Your task to perform on an android device: Open Wikipedia Image 0: 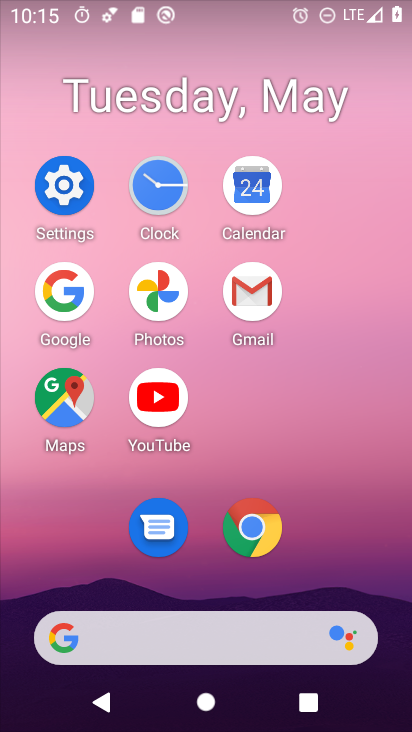
Step 0: click (256, 524)
Your task to perform on an android device: Open Wikipedia Image 1: 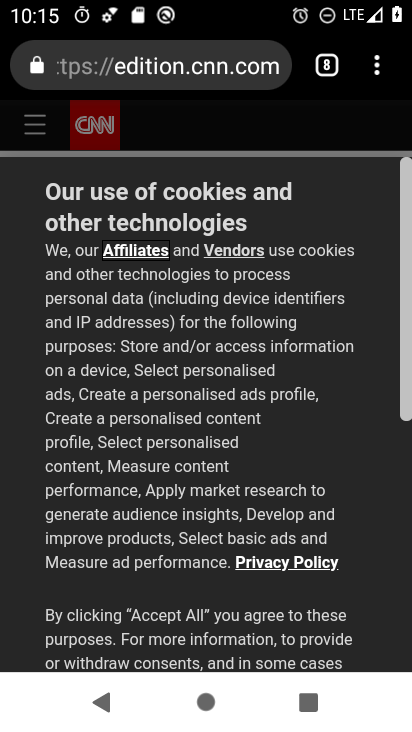
Step 1: click (334, 58)
Your task to perform on an android device: Open Wikipedia Image 2: 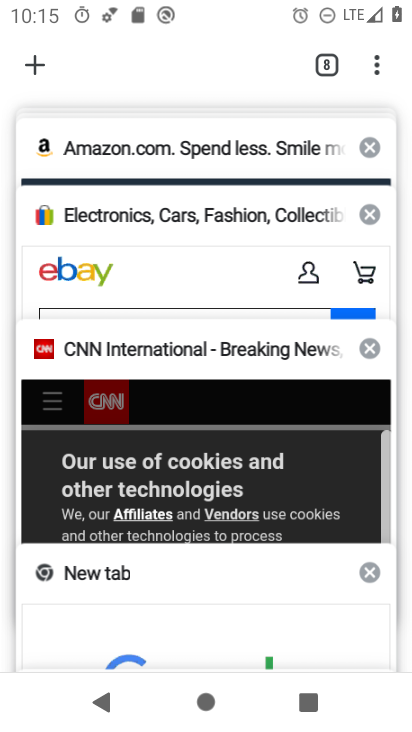
Step 2: drag from (227, 228) to (163, 620)
Your task to perform on an android device: Open Wikipedia Image 3: 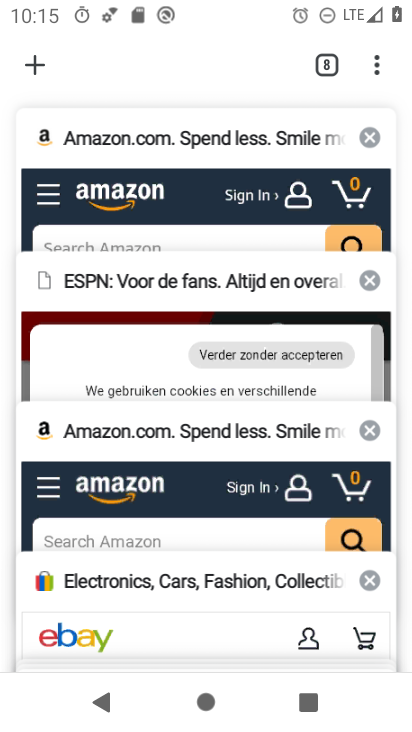
Step 3: drag from (203, 162) to (168, 580)
Your task to perform on an android device: Open Wikipedia Image 4: 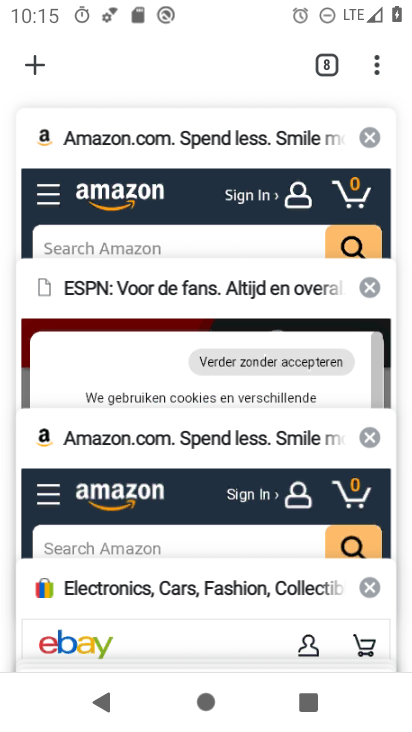
Step 4: drag from (150, 424) to (175, 99)
Your task to perform on an android device: Open Wikipedia Image 5: 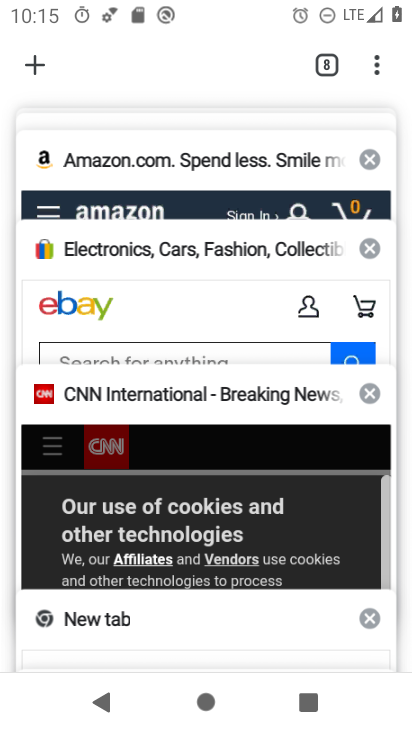
Step 5: drag from (141, 429) to (129, 136)
Your task to perform on an android device: Open Wikipedia Image 6: 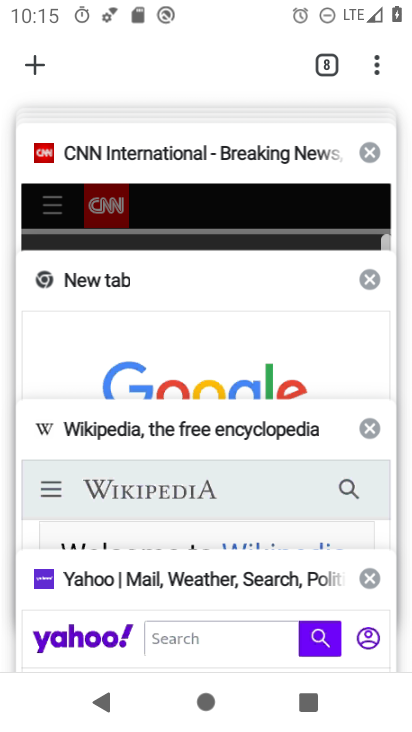
Step 6: click (141, 441)
Your task to perform on an android device: Open Wikipedia Image 7: 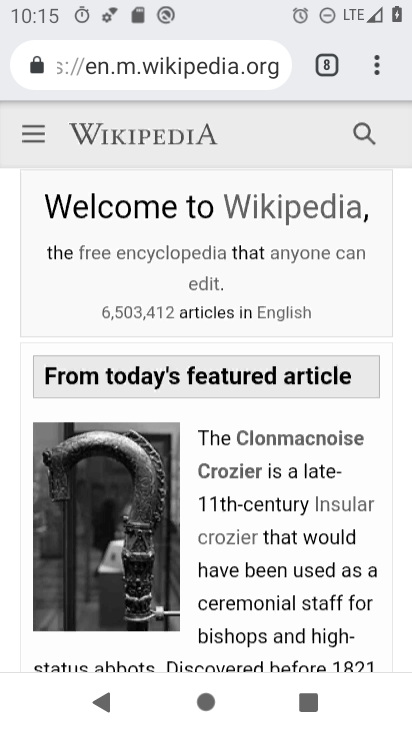
Step 7: task complete